Your task to perform on an android device: What's the weather? Image 0: 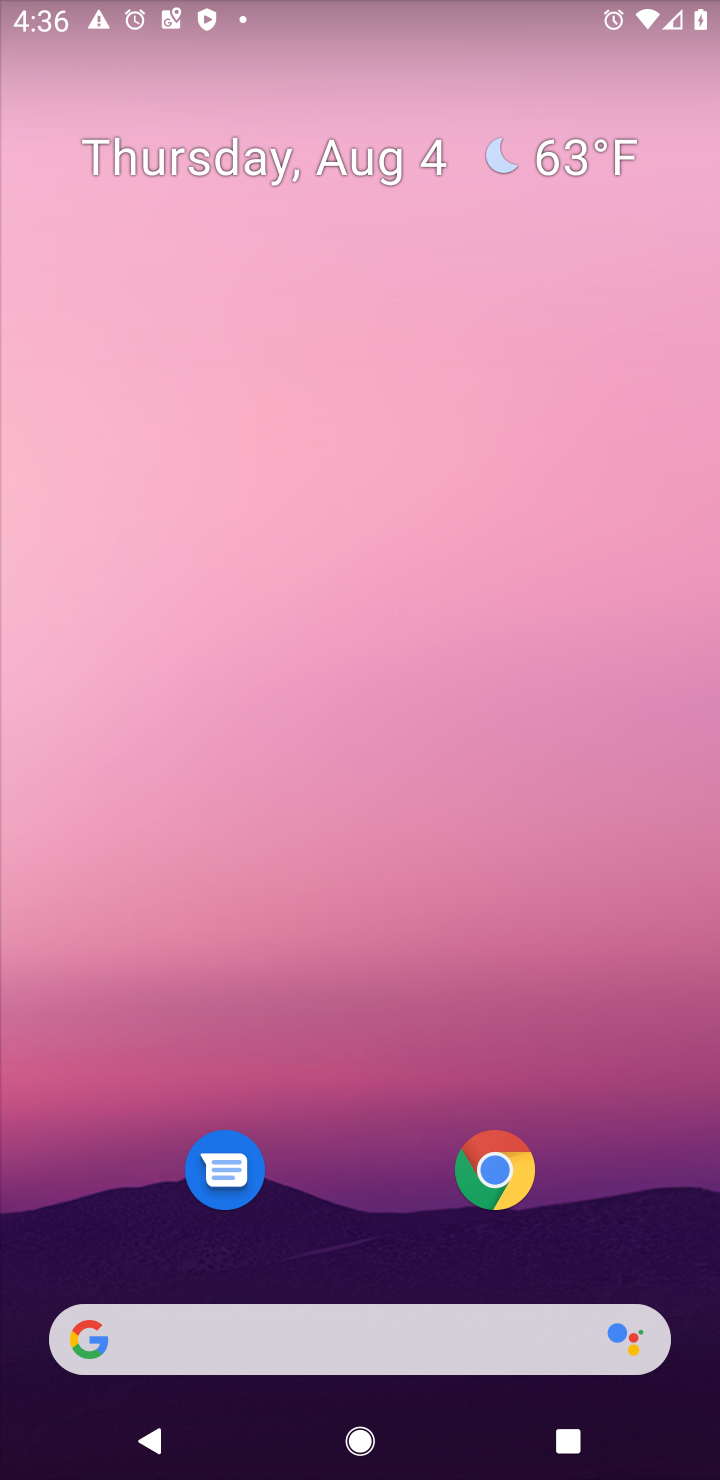
Step 0: click (551, 162)
Your task to perform on an android device: What's the weather? Image 1: 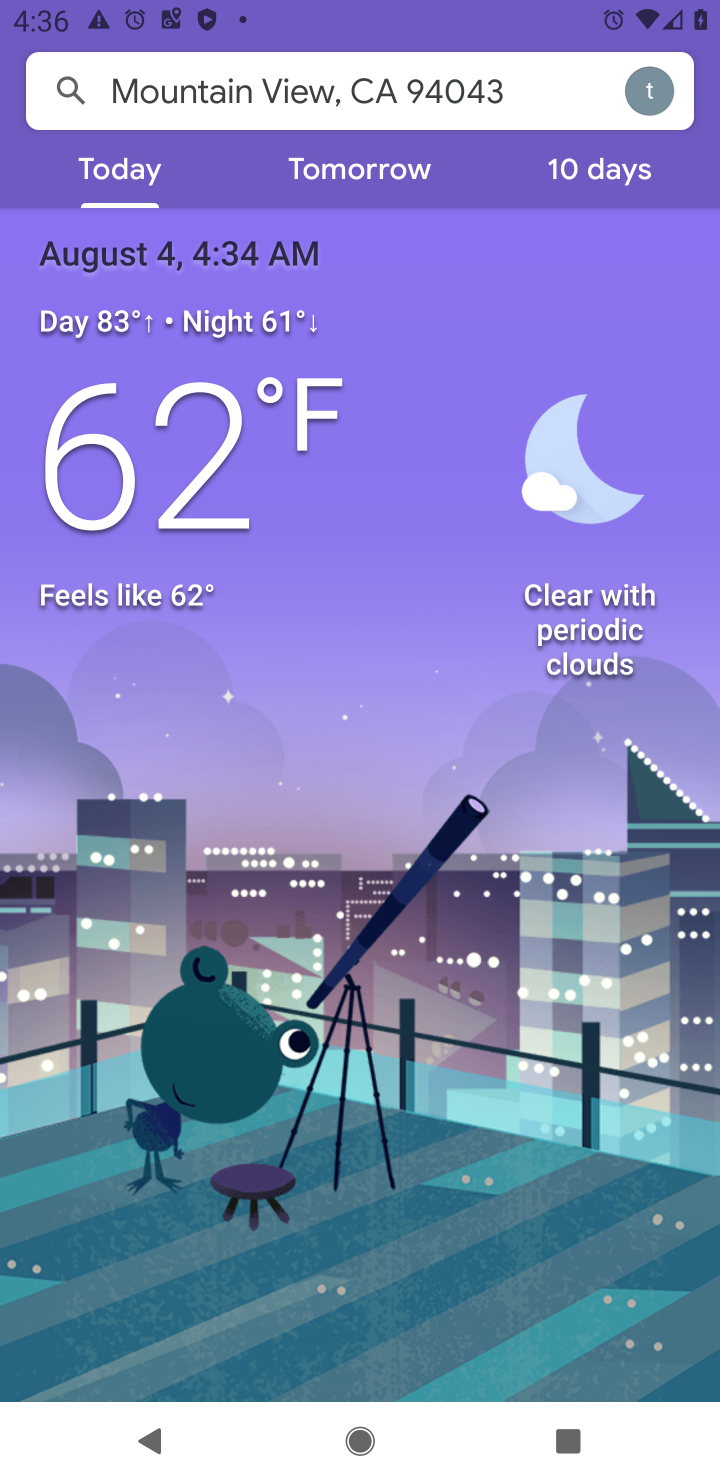
Step 1: task complete